Your task to perform on an android device: turn off priority inbox in the gmail app Image 0: 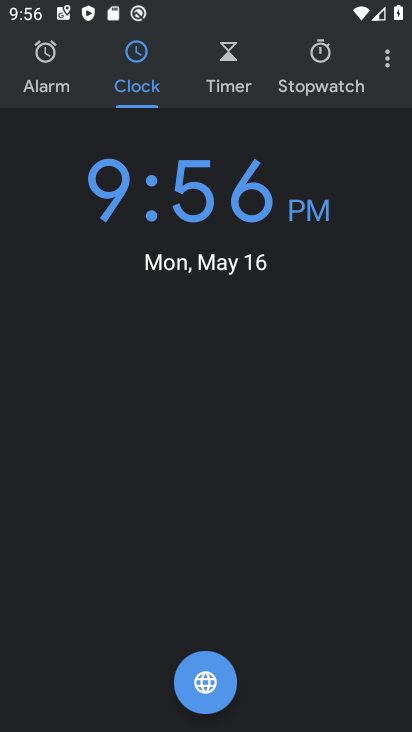
Step 0: press home button
Your task to perform on an android device: turn off priority inbox in the gmail app Image 1: 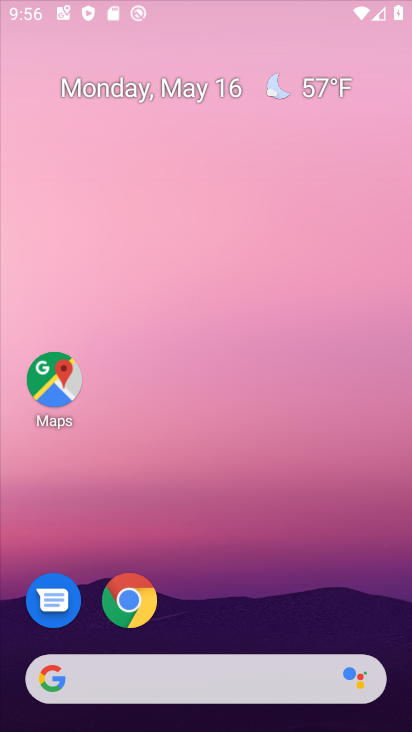
Step 1: drag from (353, 615) to (341, 42)
Your task to perform on an android device: turn off priority inbox in the gmail app Image 2: 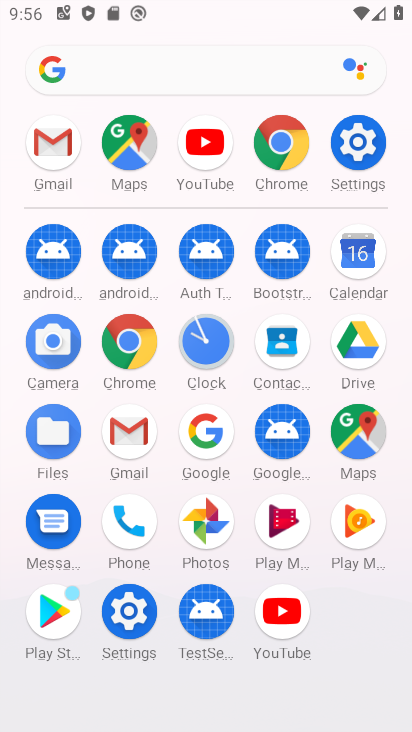
Step 2: click (128, 439)
Your task to perform on an android device: turn off priority inbox in the gmail app Image 3: 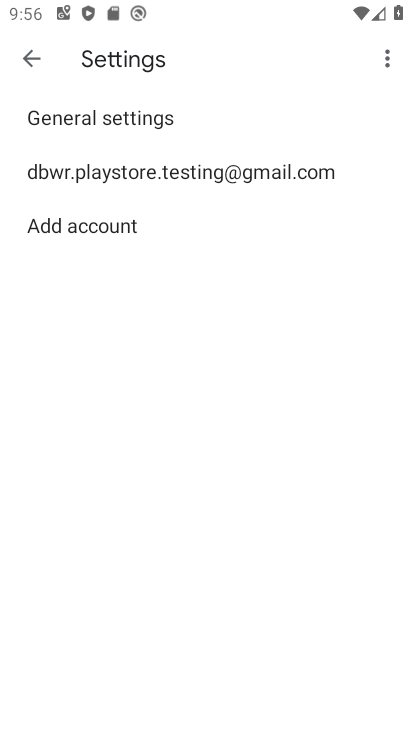
Step 3: click (188, 181)
Your task to perform on an android device: turn off priority inbox in the gmail app Image 4: 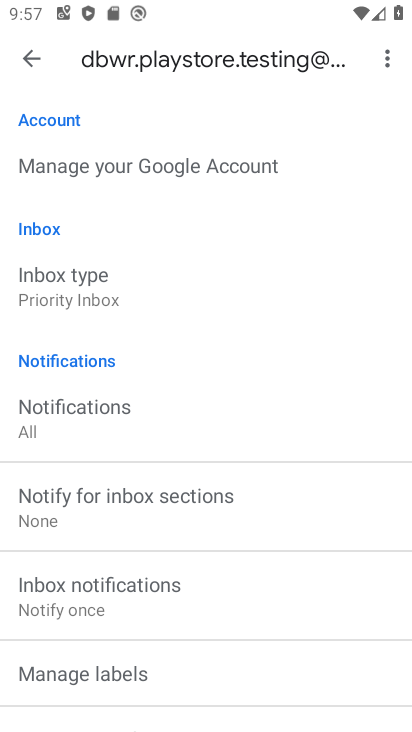
Step 4: click (97, 297)
Your task to perform on an android device: turn off priority inbox in the gmail app Image 5: 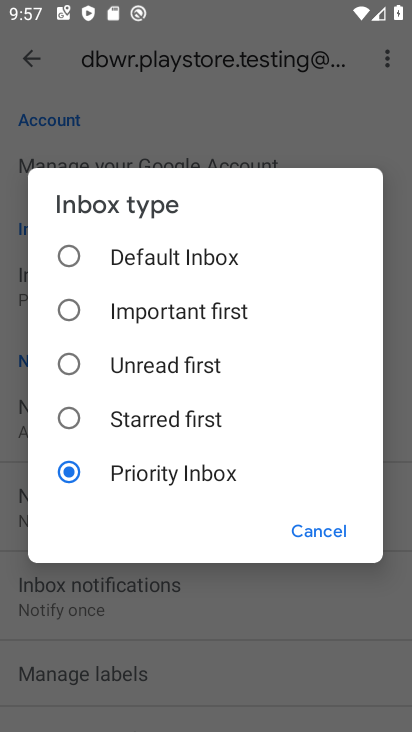
Step 5: click (78, 259)
Your task to perform on an android device: turn off priority inbox in the gmail app Image 6: 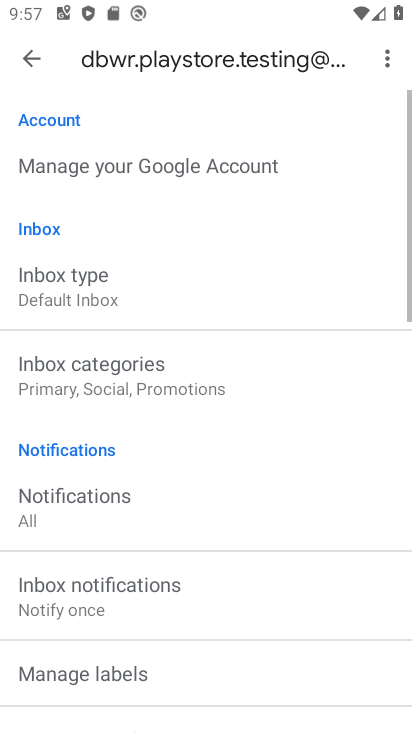
Step 6: task complete